Your task to perform on an android device: Open Youtube and go to "Your channel" Image 0: 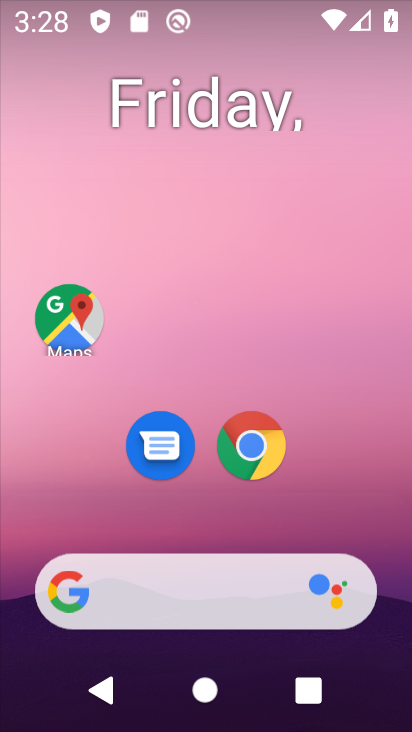
Step 0: drag from (400, 619) to (289, 14)
Your task to perform on an android device: Open Youtube and go to "Your channel" Image 1: 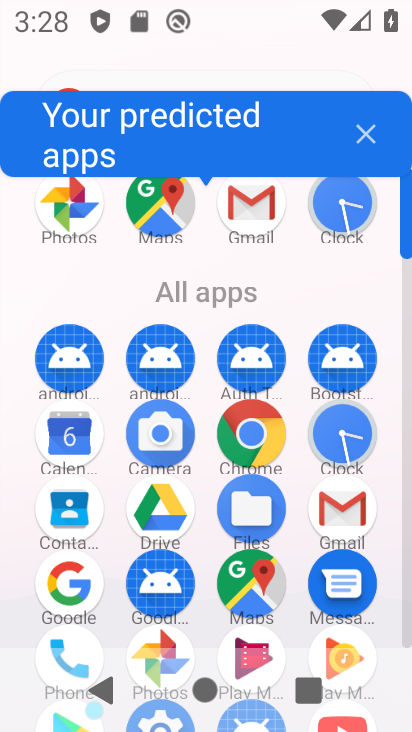
Step 1: drag from (4, 614) to (26, 226)
Your task to perform on an android device: Open Youtube and go to "Your channel" Image 2: 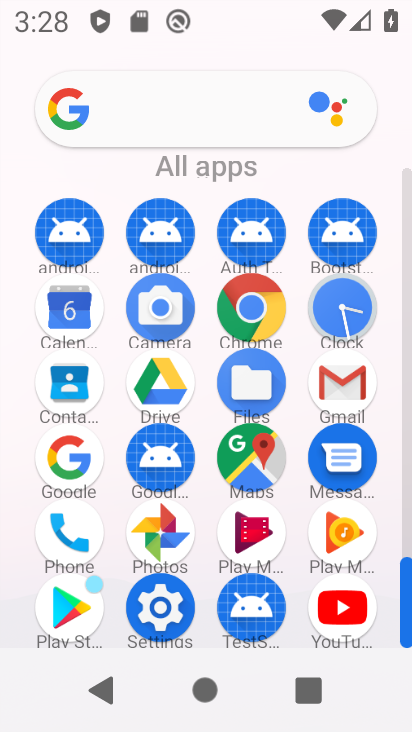
Step 2: click (343, 605)
Your task to perform on an android device: Open Youtube and go to "Your channel" Image 3: 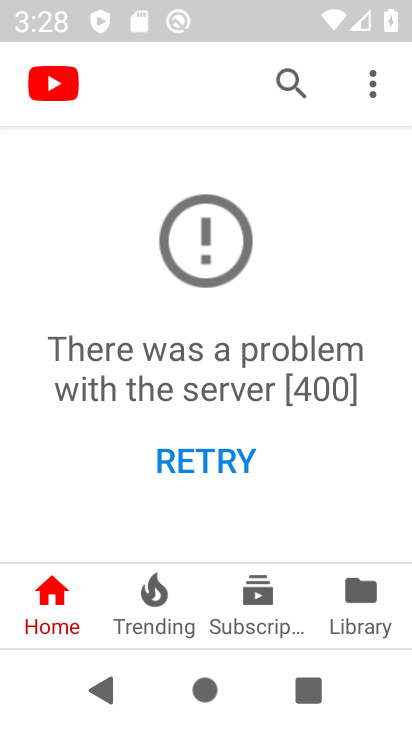
Step 3: click (374, 70)
Your task to perform on an android device: Open Youtube and go to "Your channel" Image 4: 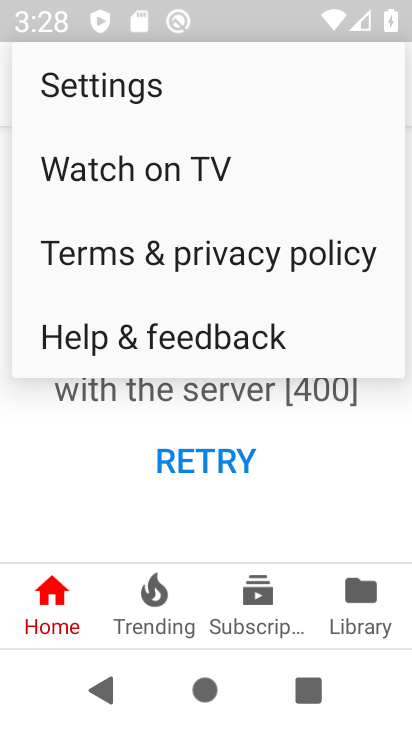
Step 4: click (201, 96)
Your task to perform on an android device: Open Youtube and go to "Your channel" Image 5: 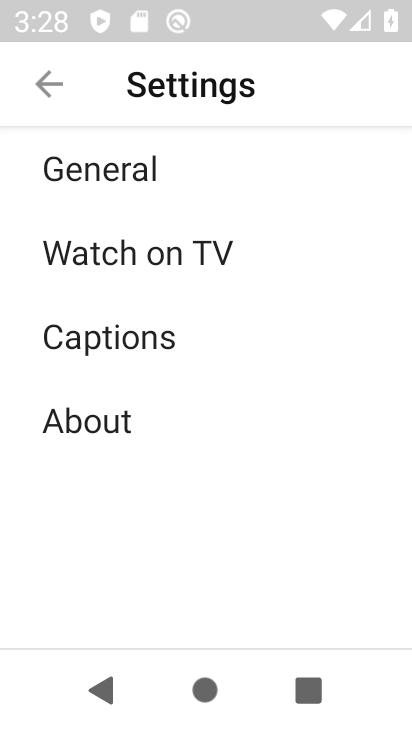
Step 5: click (39, 88)
Your task to perform on an android device: Open Youtube and go to "Your channel" Image 6: 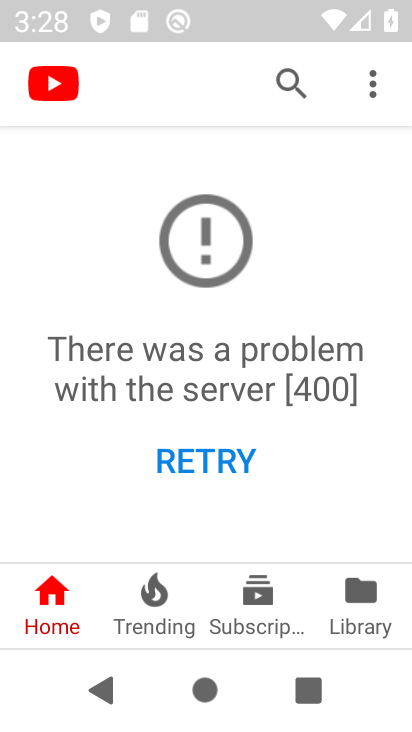
Step 6: task complete